Your task to perform on an android device: change notifications settings Image 0: 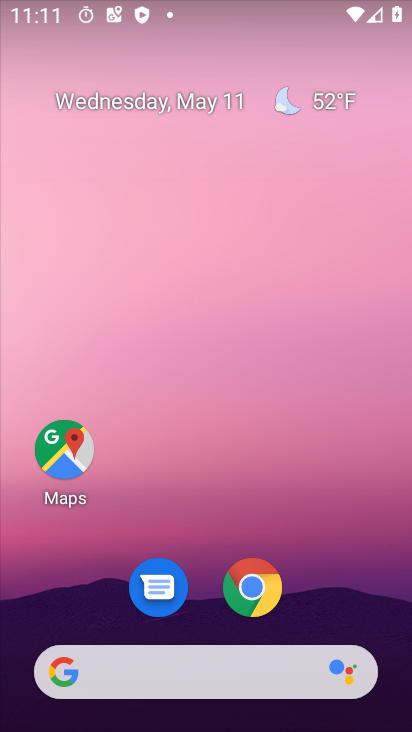
Step 0: drag from (241, 686) to (258, 216)
Your task to perform on an android device: change notifications settings Image 1: 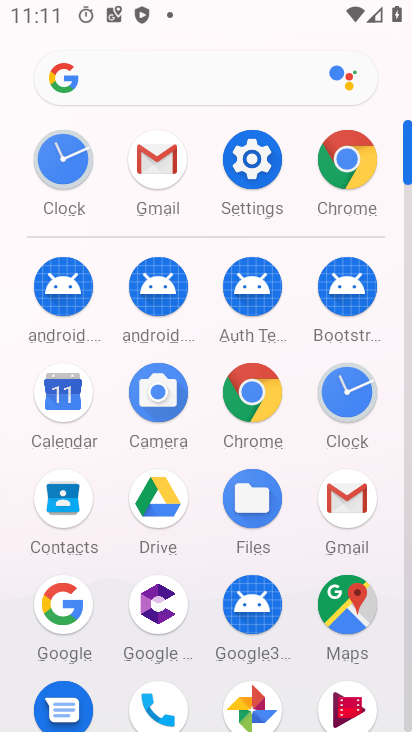
Step 1: click (269, 169)
Your task to perform on an android device: change notifications settings Image 2: 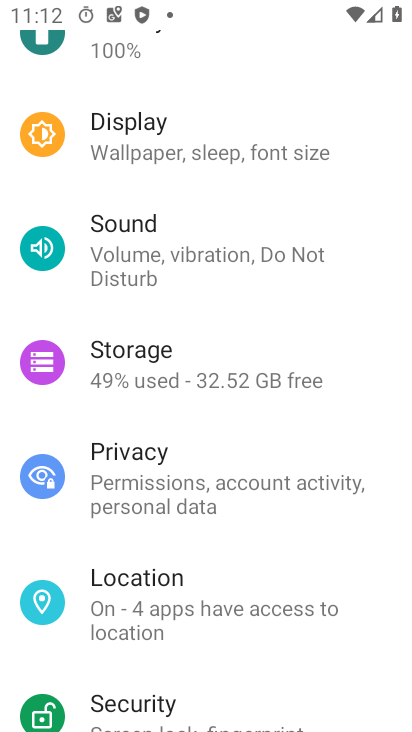
Step 2: drag from (169, 258) to (145, 441)
Your task to perform on an android device: change notifications settings Image 3: 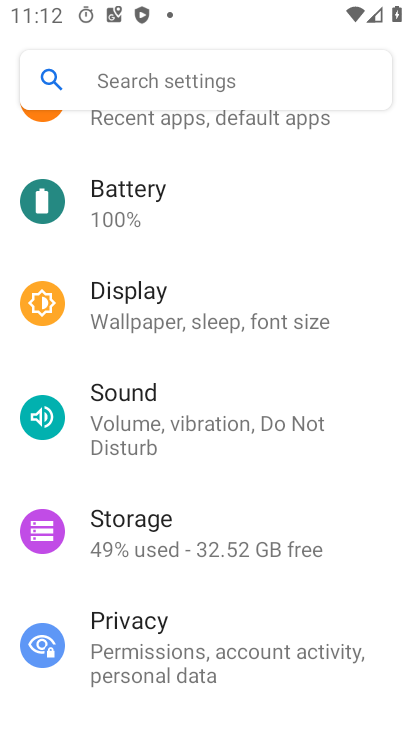
Step 3: click (199, 84)
Your task to perform on an android device: change notifications settings Image 4: 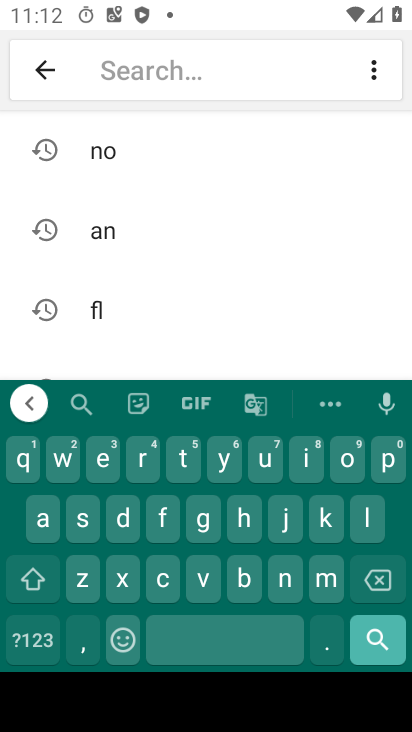
Step 4: click (122, 163)
Your task to perform on an android device: change notifications settings Image 5: 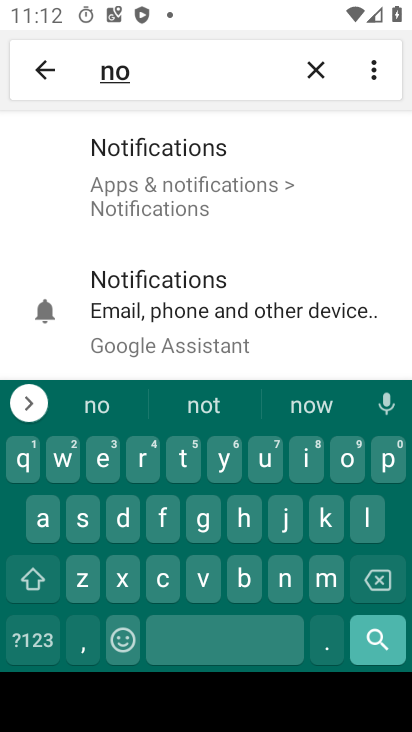
Step 5: click (132, 179)
Your task to perform on an android device: change notifications settings Image 6: 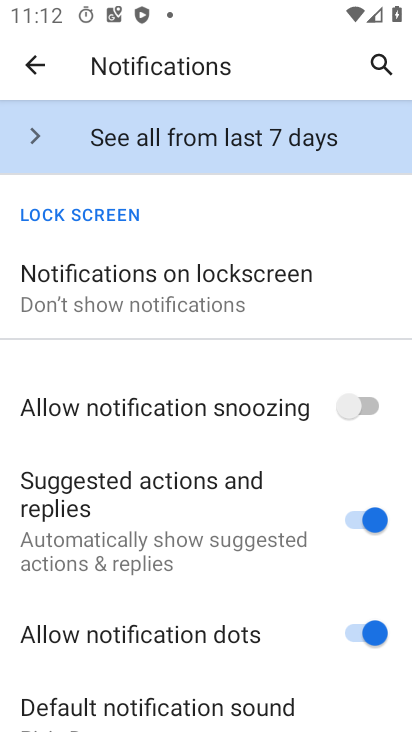
Step 6: click (161, 289)
Your task to perform on an android device: change notifications settings Image 7: 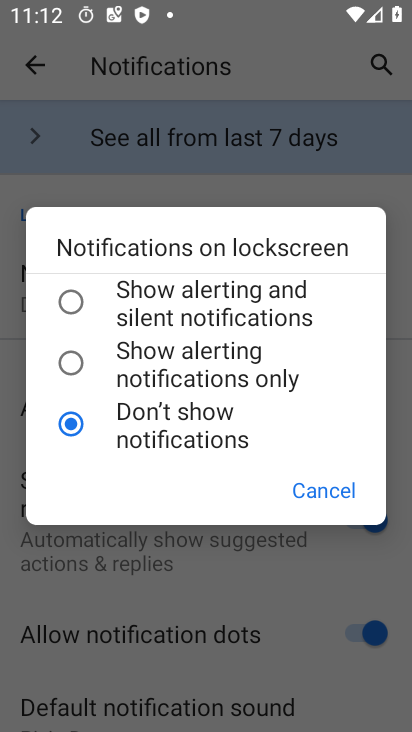
Step 7: click (174, 289)
Your task to perform on an android device: change notifications settings Image 8: 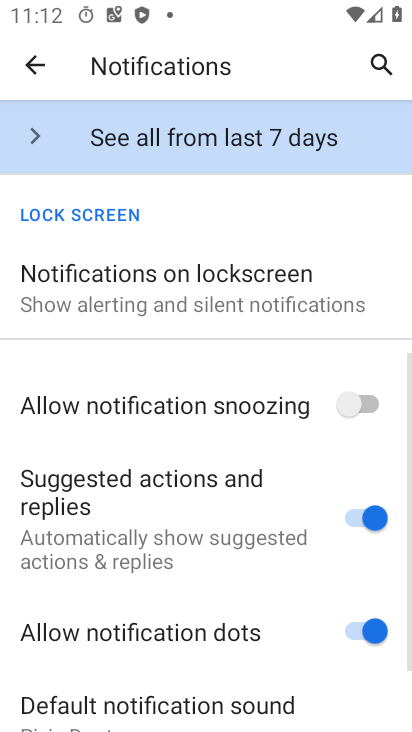
Step 8: task complete